Your task to perform on an android device: Open accessibility settings Image 0: 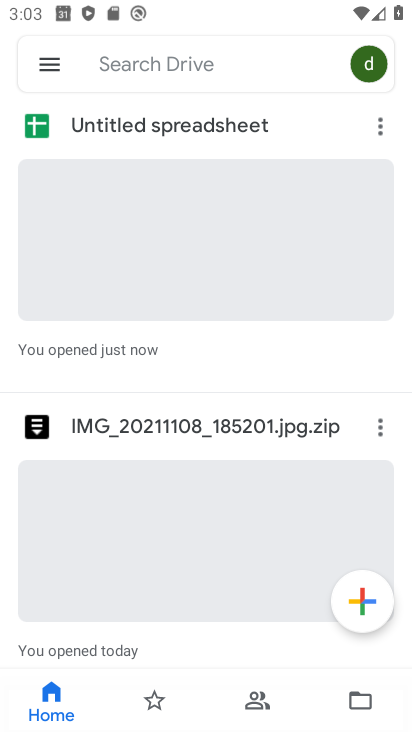
Step 0: press home button
Your task to perform on an android device: Open accessibility settings Image 1: 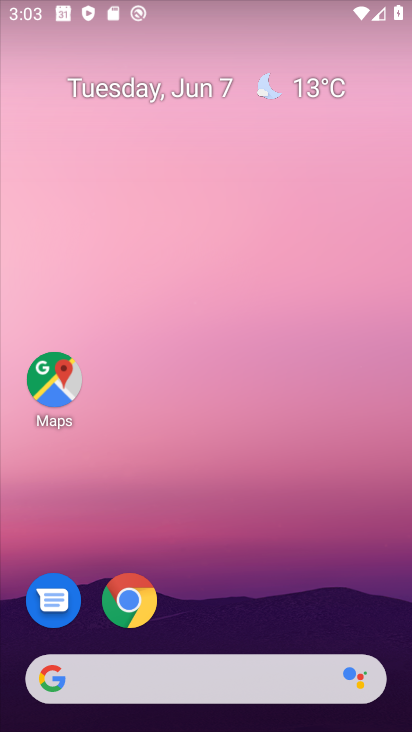
Step 1: drag from (225, 480) to (190, 106)
Your task to perform on an android device: Open accessibility settings Image 2: 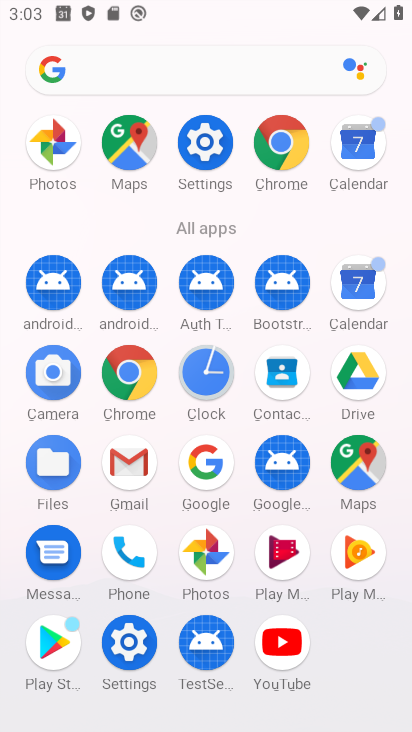
Step 2: click (208, 141)
Your task to perform on an android device: Open accessibility settings Image 3: 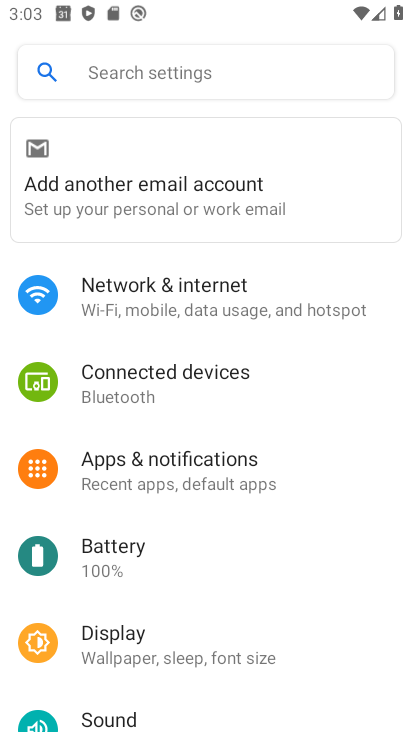
Step 3: drag from (225, 580) to (200, 160)
Your task to perform on an android device: Open accessibility settings Image 4: 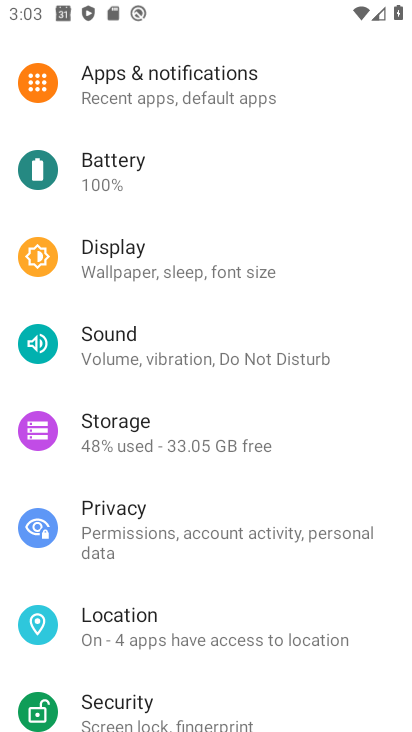
Step 4: drag from (223, 635) to (164, 128)
Your task to perform on an android device: Open accessibility settings Image 5: 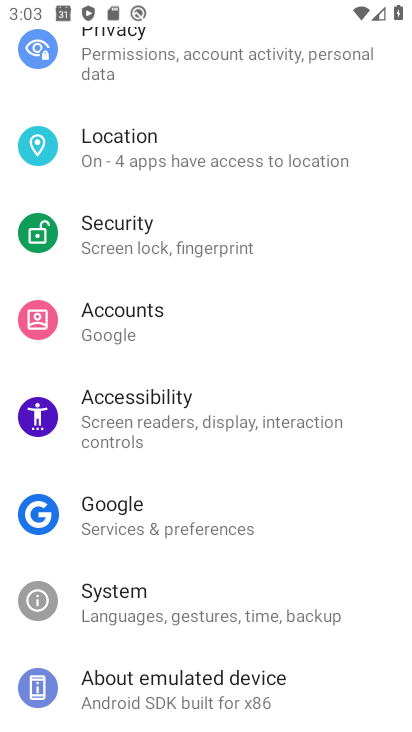
Step 5: click (171, 429)
Your task to perform on an android device: Open accessibility settings Image 6: 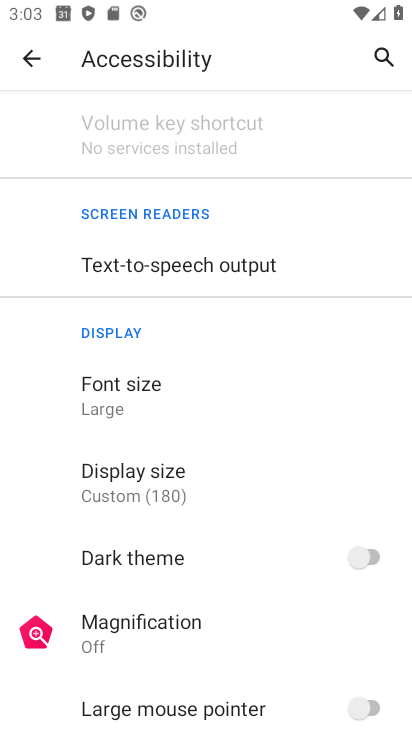
Step 6: task complete